Your task to perform on an android device: Go to wifi settings Image 0: 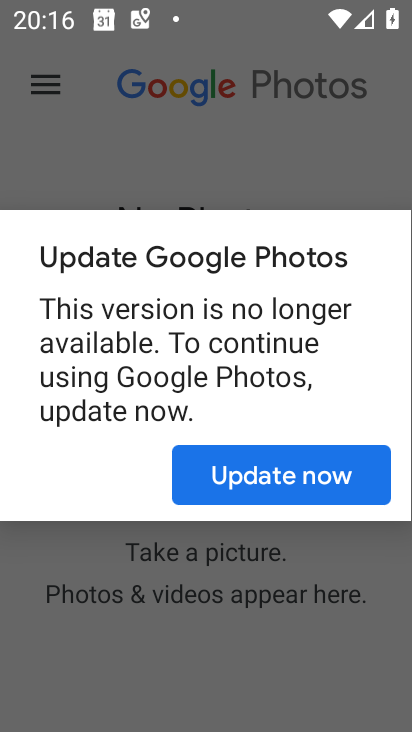
Step 0: press home button
Your task to perform on an android device: Go to wifi settings Image 1: 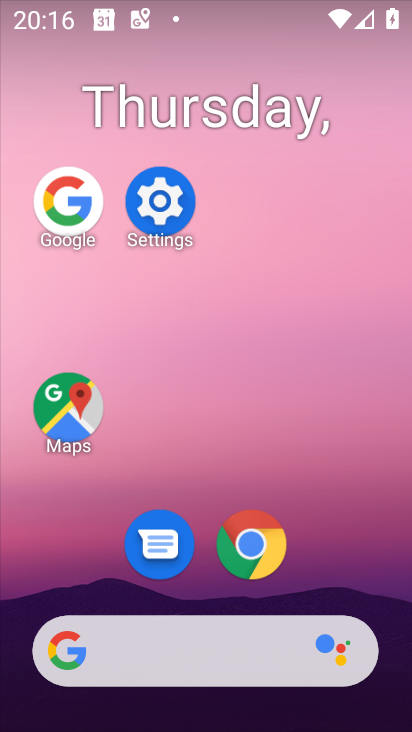
Step 1: drag from (276, 702) to (244, 81)
Your task to perform on an android device: Go to wifi settings Image 2: 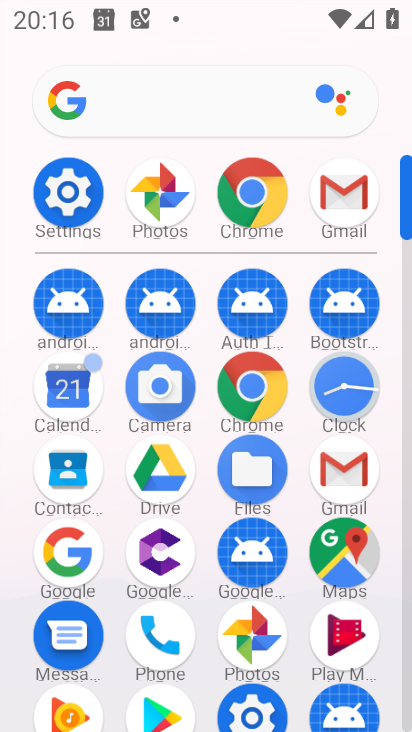
Step 2: click (55, 193)
Your task to perform on an android device: Go to wifi settings Image 3: 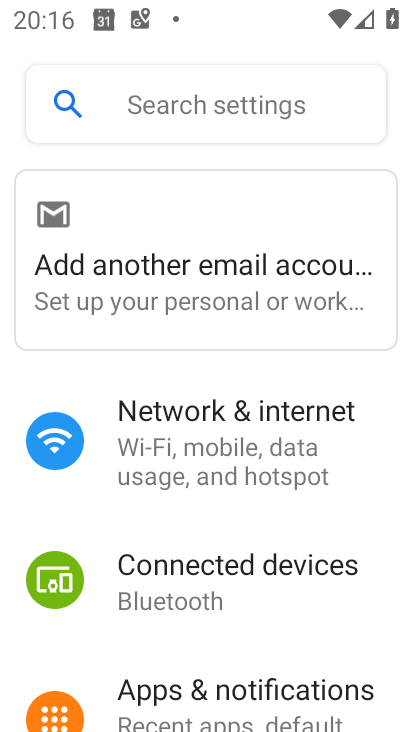
Step 3: click (180, 423)
Your task to perform on an android device: Go to wifi settings Image 4: 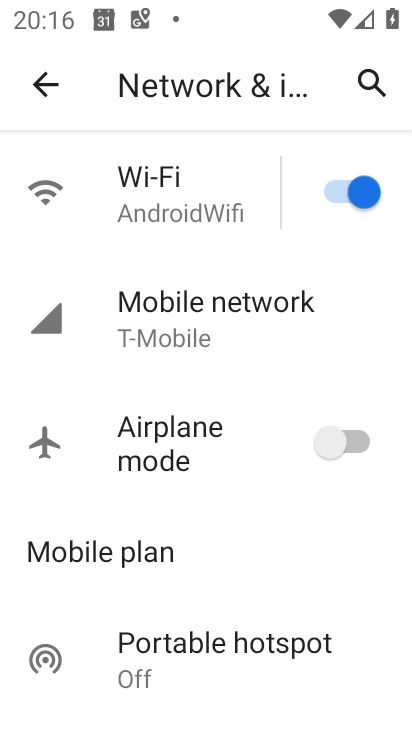
Step 4: click (203, 203)
Your task to perform on an android device: Go to wifi settings Image 5: 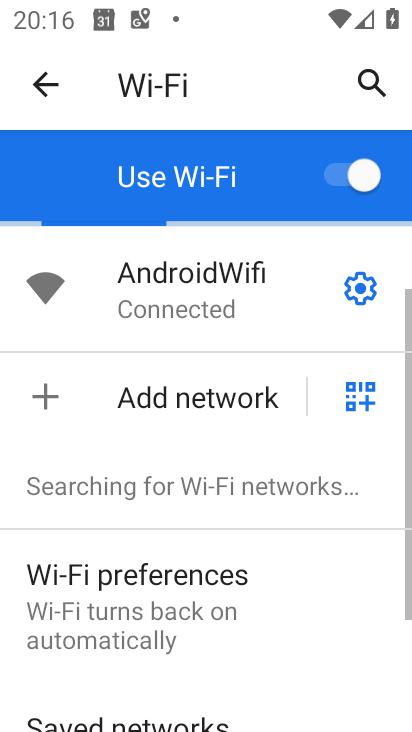
Step 5: task complete